Your task to perform on an android device: Open maps Image 0: 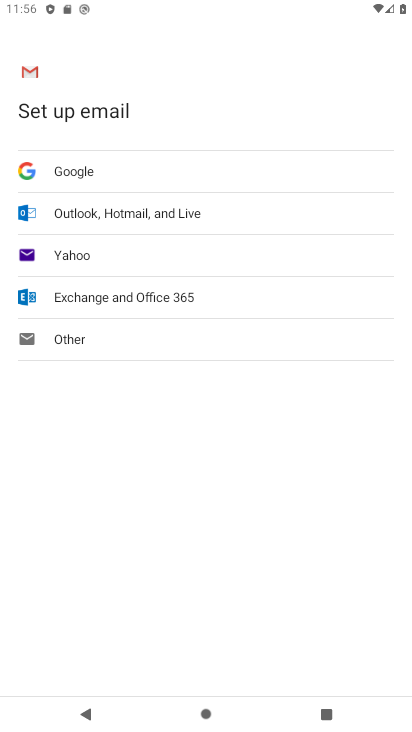
Step 0: press back button
Your task to perform on an android device: Open maps Image 1: 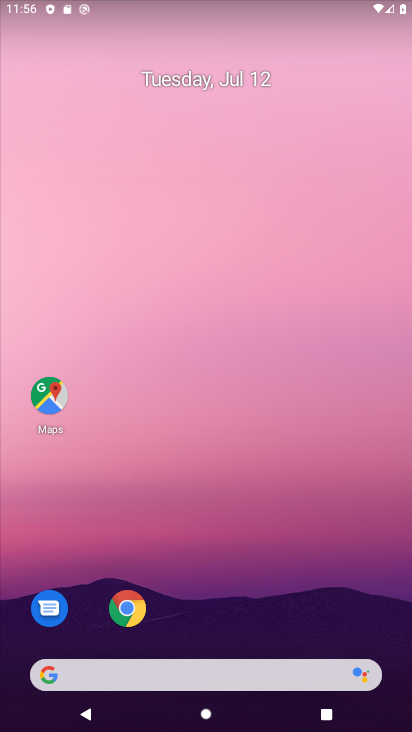
Step 1: click (53, 398)
Your task to perform on an android device: Open maps Image 2: 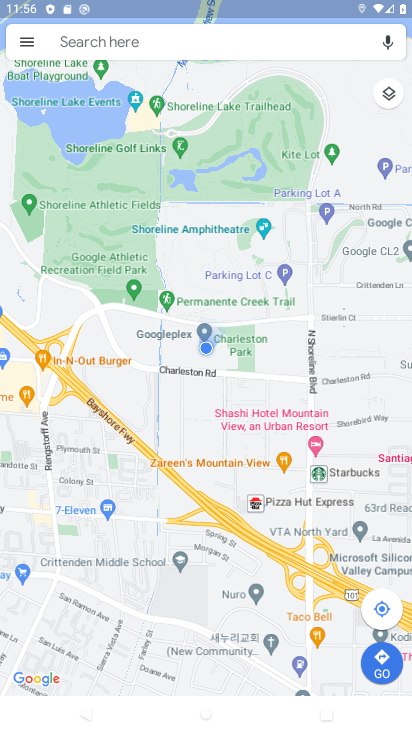
Step 2: task complete